Your task to perform on an android device: Open Google Image 0: 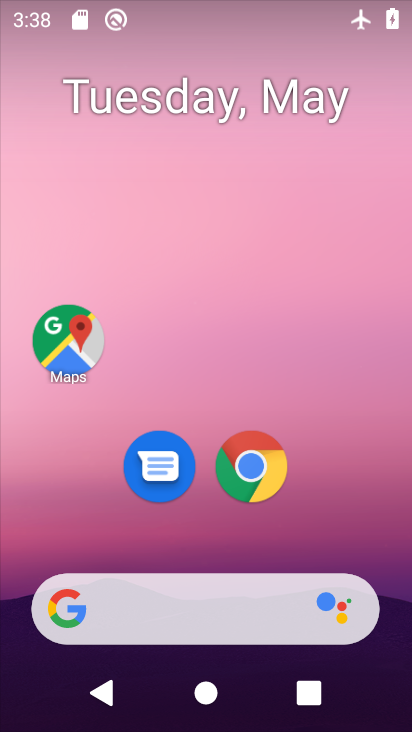
Step 0: drag from (344, 523) to (368, 132)
Your task to perform on an android device: Open Google Image 1: 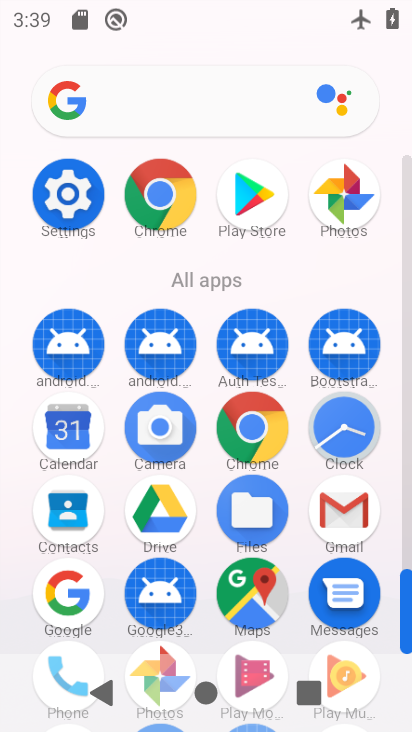
Step 1: drag from (276, 306) to (276, 93)
Your task to perform on an android device: Open Google Image 2: 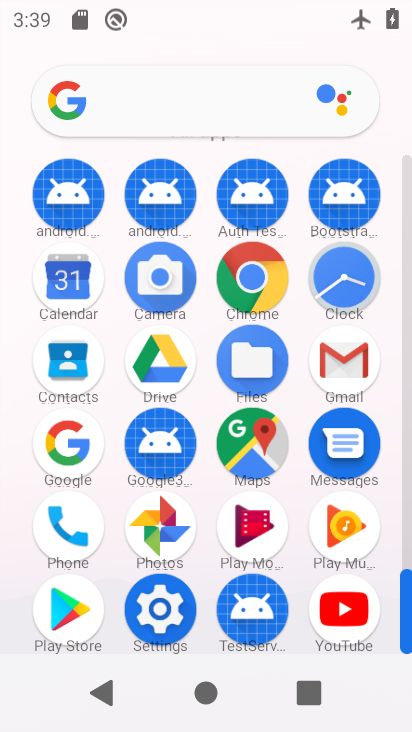
Step 2: click (59, 446)
Your task to perform on an android device: Open Google Image 3: 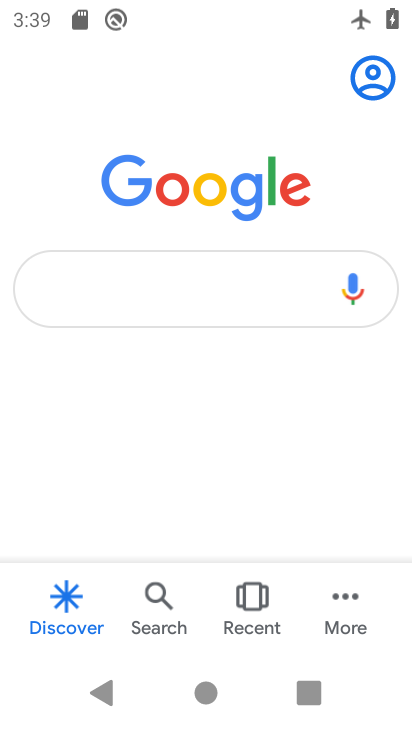
Step 3: task complete